Your task to perform on an android device: Open Wikipedia Image 0: 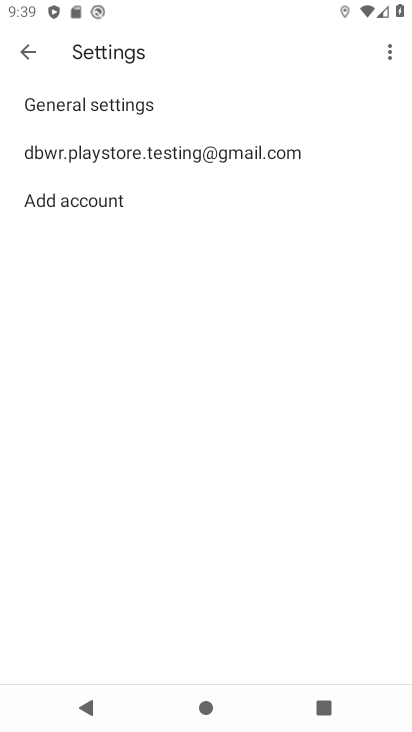
Step 0: press home button
Your task to perform on an android device: Open Wikipedia Image 1: 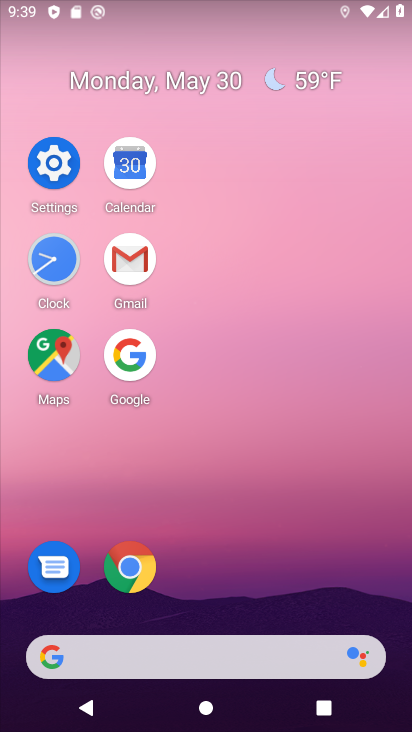
Step 1: click (140, 585)
Your task to perform on an android device: Open Wikipedia Image 2: 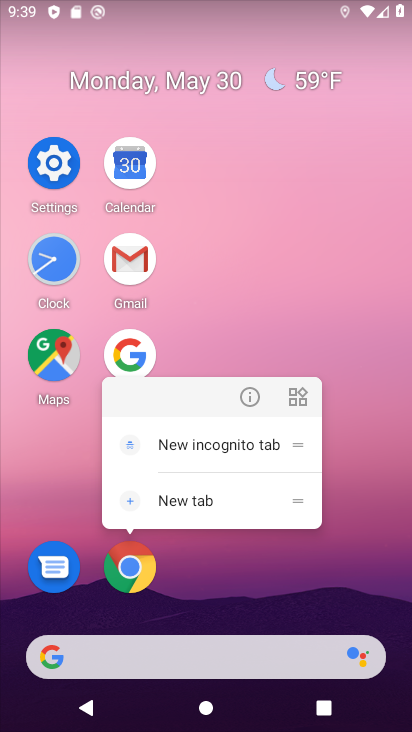
Step 2: click (140, 561)
Your task to perform on an android device: Open Wikipedia Image 3: 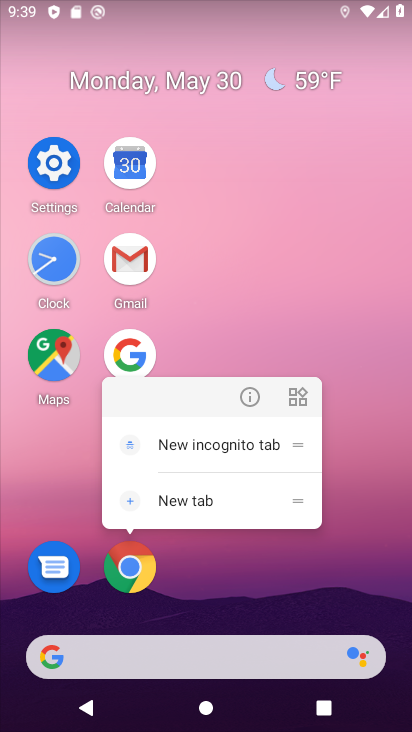
Step 3: click (130, 564)
Your task to perform on an android device: Open Wikipedia Image 4: 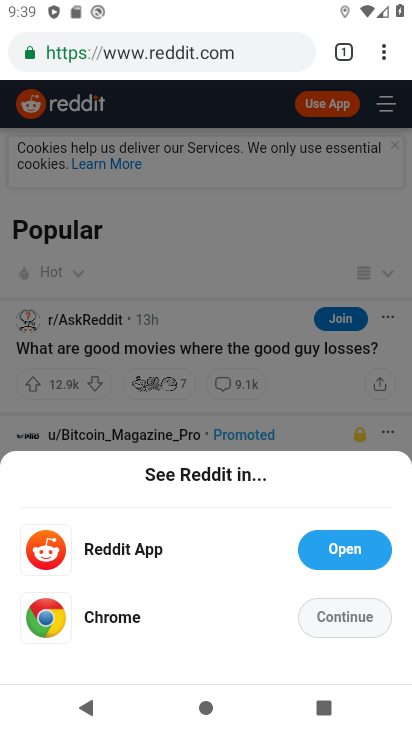
Step 4: click (357, 63)
Your task to perform on an android device: Open Wikipedia Image 5: 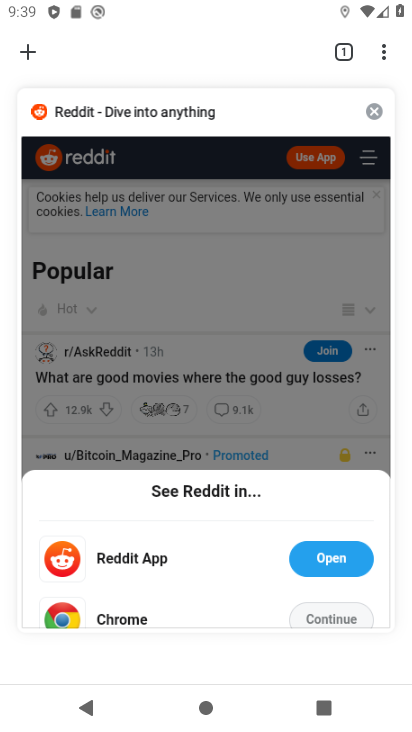
Step 5: click (28, 49)
Your task to perform on an android device: Open Wikipedia Image 6: 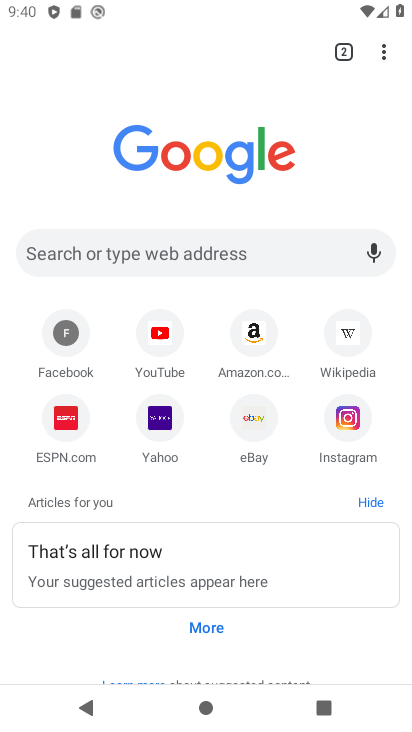
Step 6: click (349, 343)
Your task to perform on an android device: Open Wikipedia Image 7: 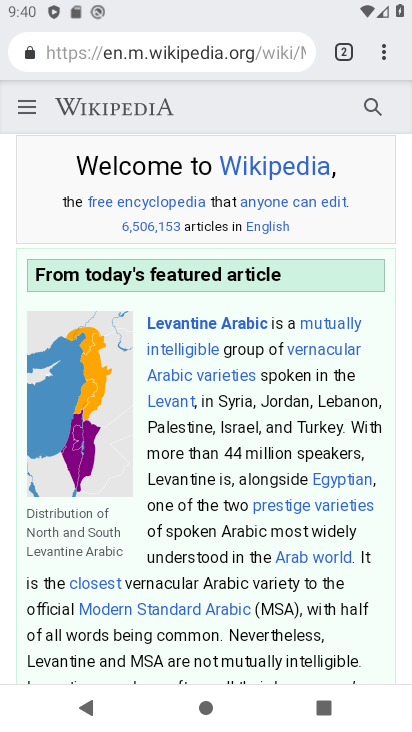
Step 7: task complete